Your task to perform on an android device: add a label to a message in the gmail app Image 0: 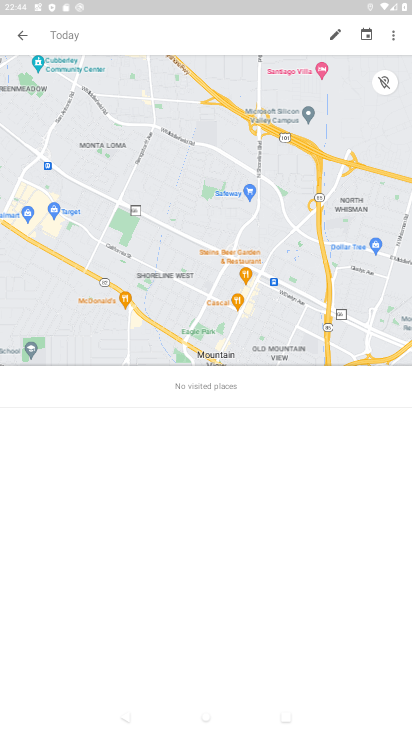
Step 0: press home button
Your task to perform on an android device: add a label to a message in the gmail app Image 1: 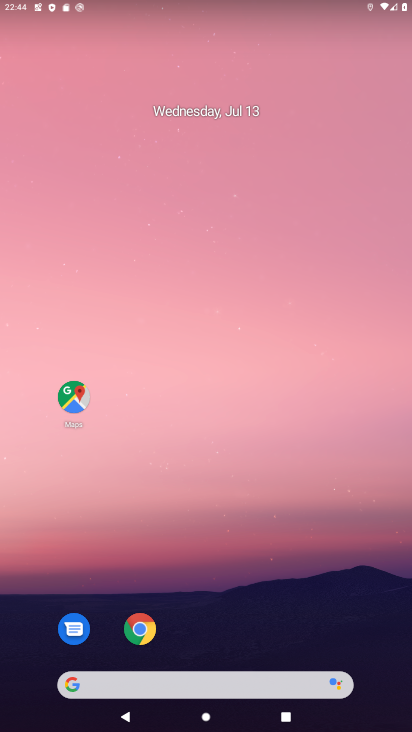
Step 1: drag from (223, 646) to (235, 142)
Your task to perform on an android device: add a label to a message in the gmail app Image 2: 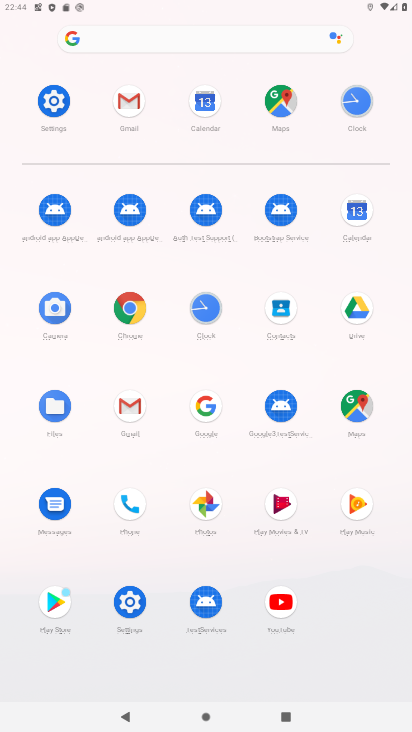
Step 2: click (131, 97)
Your task to perform on an android device: add a label to a message in the gmail app Image 3: 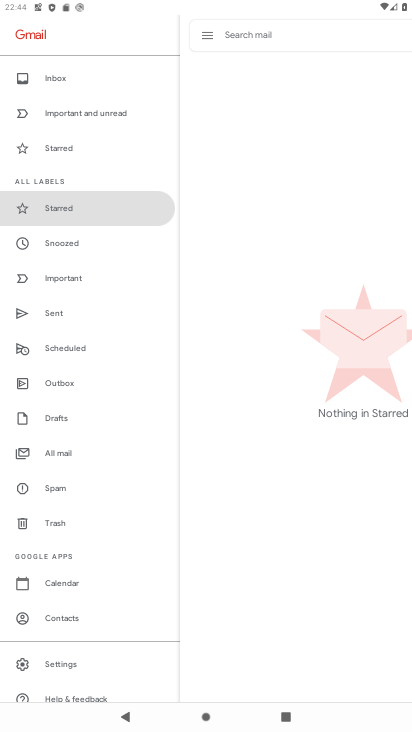
Step 3: click (68, 453)
Your task to perform on an android device: add a label to a message in the gmail app Image 4: 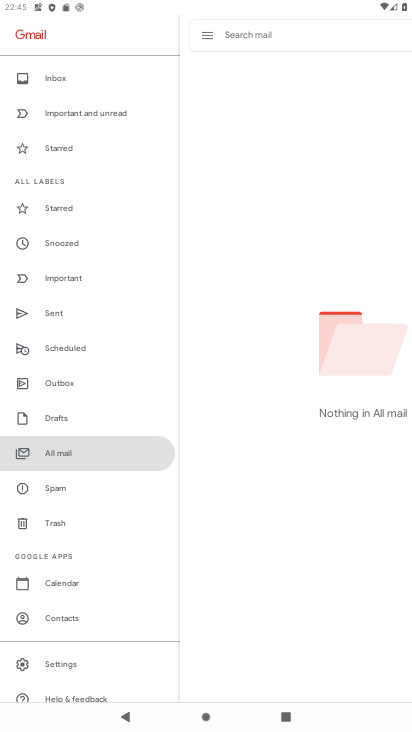
Step 4: task complete